Your task to perform on an android device: Open calendar and show me the second week of next month Image 0: 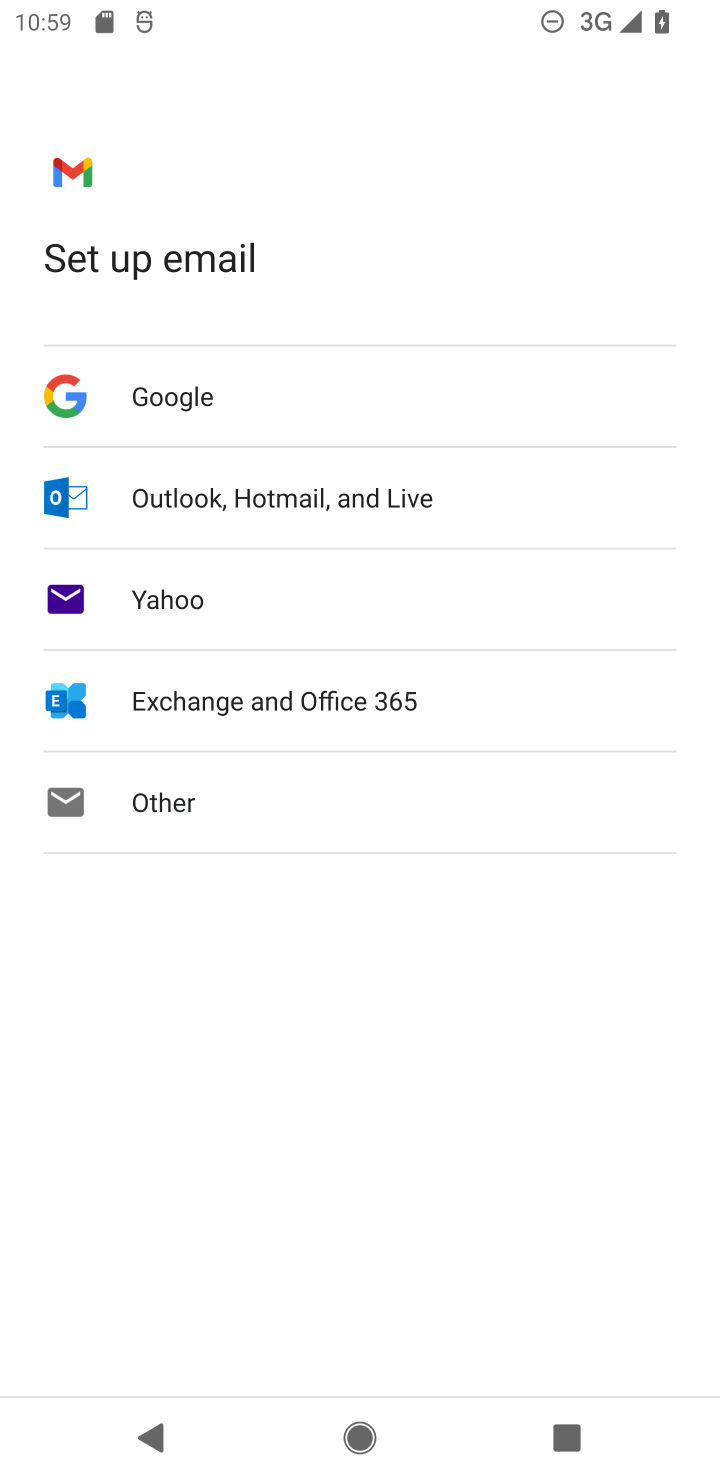
Step 0: press home button
Your task to perform on an android device: Open calendar and show me the second week of next month Image 1: 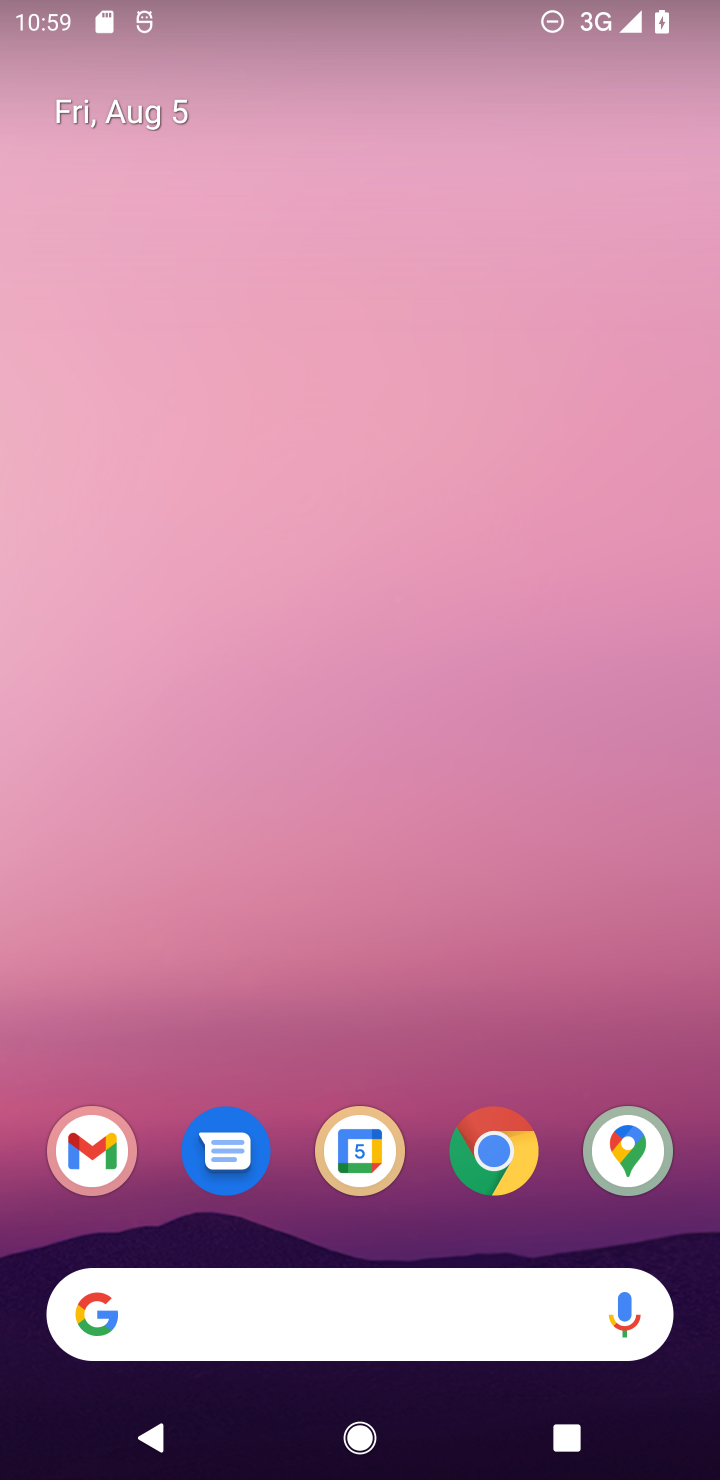
Step 1: drag from (292, 585) to (371, 183)
Your task to perform on an android device: Open calendar and show me the second week of next month Image 2: 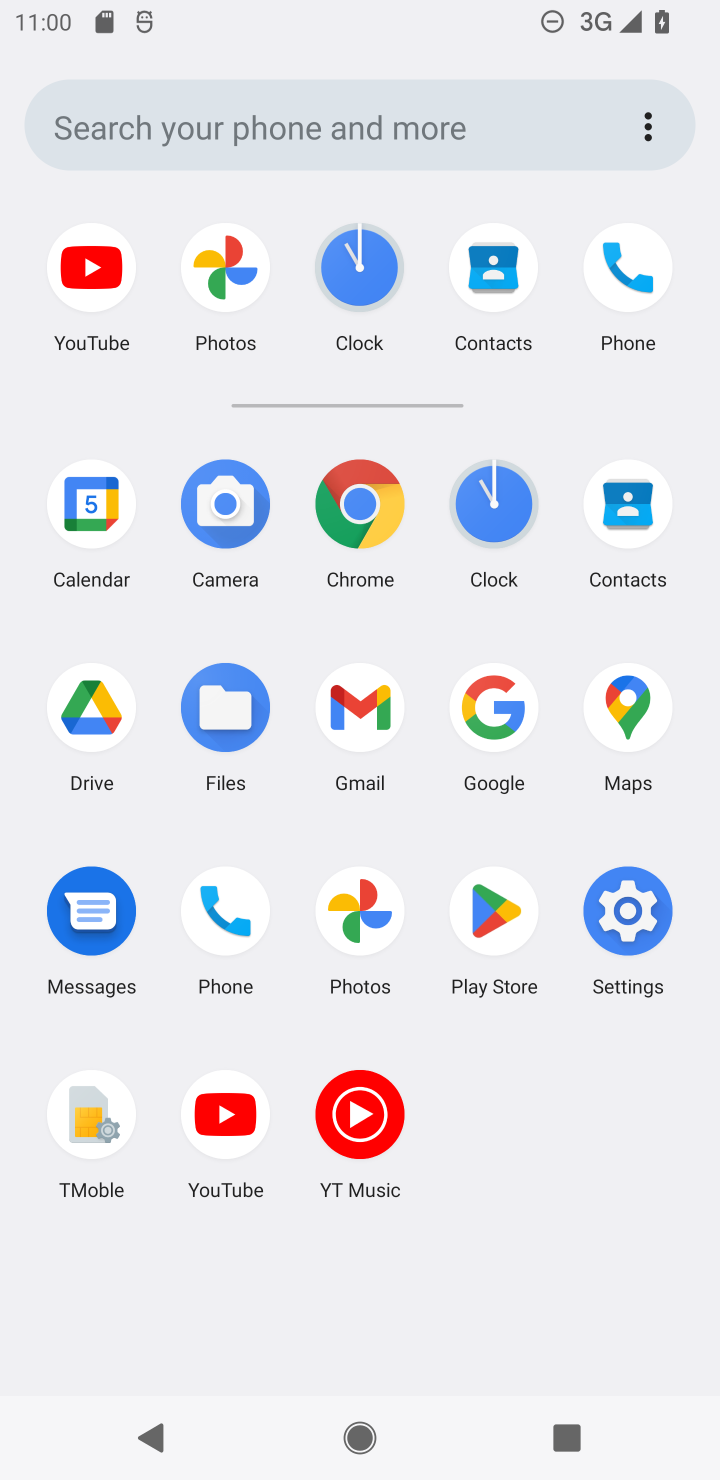
Step 2: click (82, 535)
Your task to perform on an android device: Open calendar and show me the second week of next month Image 3: 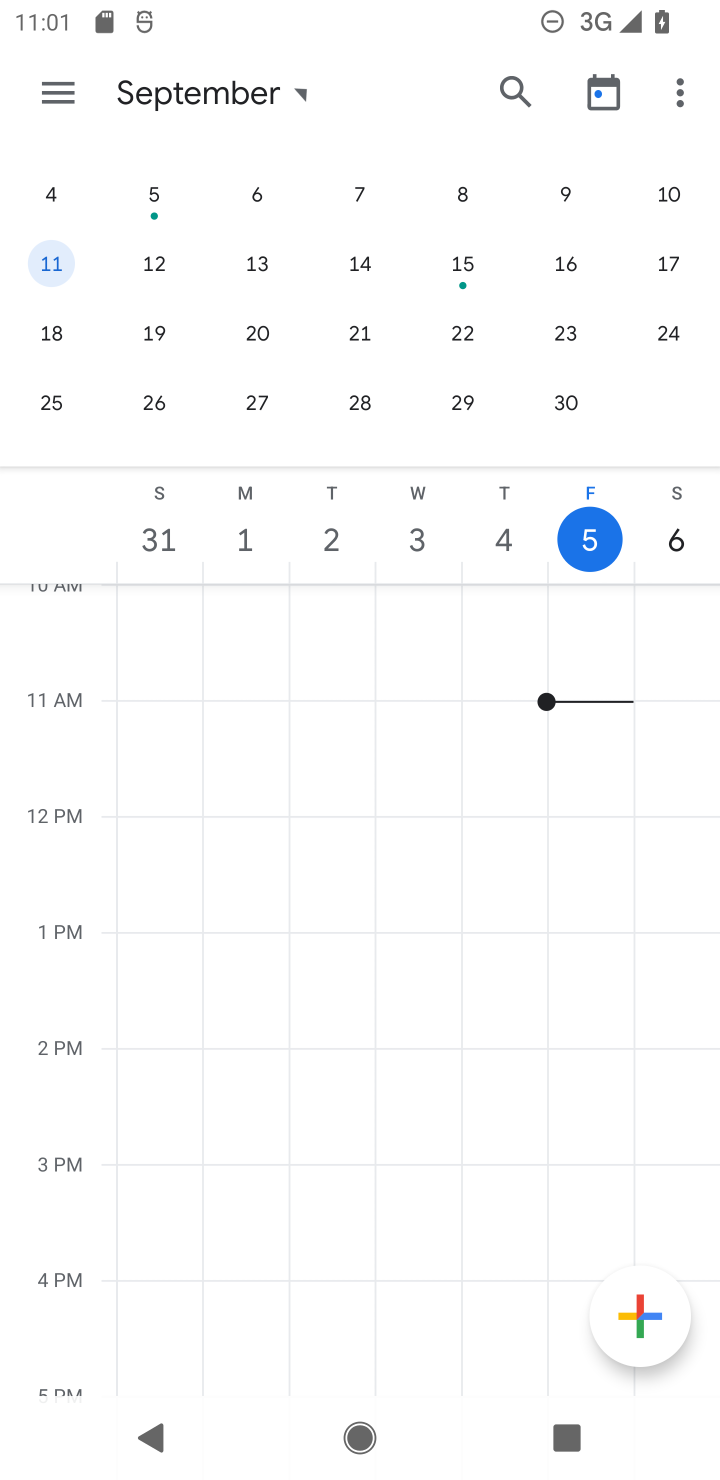
Step 3: click (42, 269)
Your task to perform on an android device: Open calendar and show me the second week of next month Image 4: 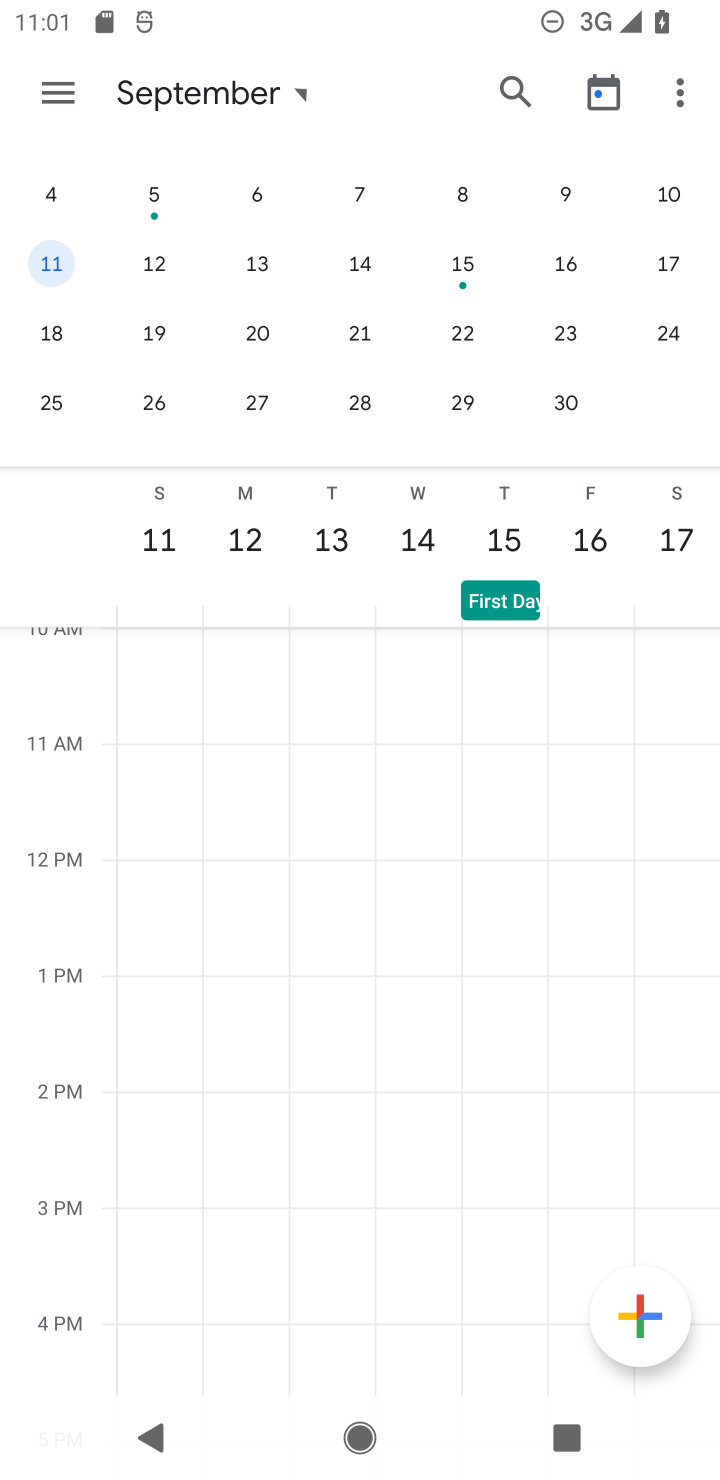
Step 4: task complete